Your task to perform on an android device: Open Reddit.com Image 0: 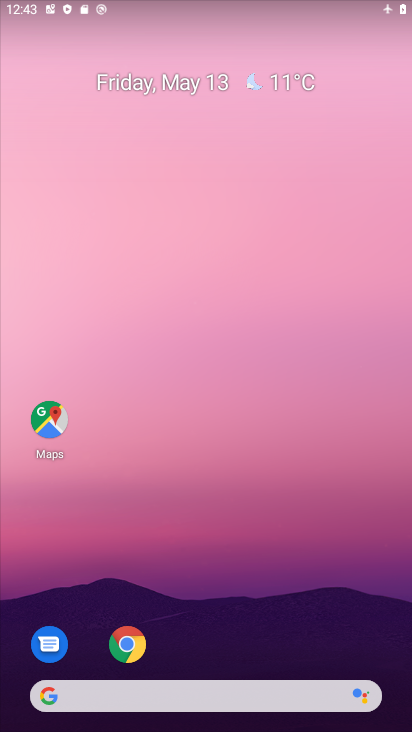
Step 0: click (122, 641)
Your task to perform on an android device: Open Reddit.com Image 1: 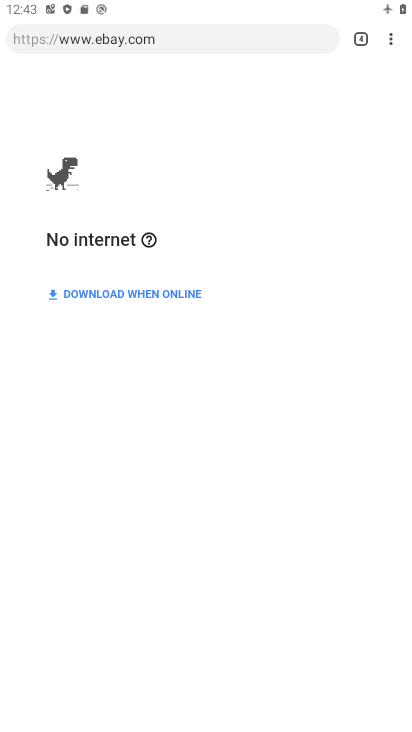
Step 1: task complete